Your task to perform on an android device: turn off data saver in the chrome app Image 0: 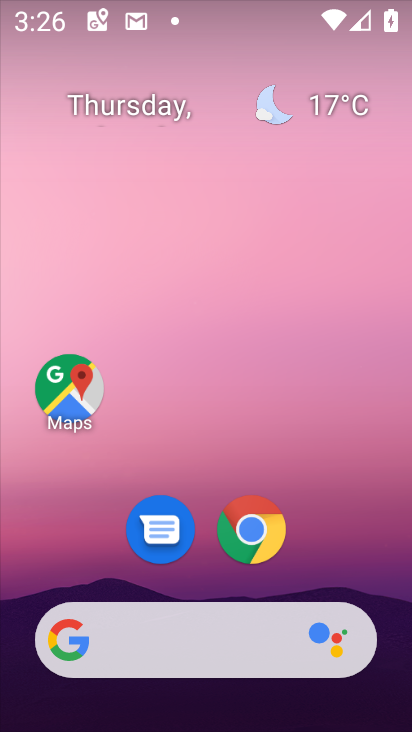
Step 0: click (244, 534)
Your task to perform on an android device: turn off data saver in the chrome app Image 1: 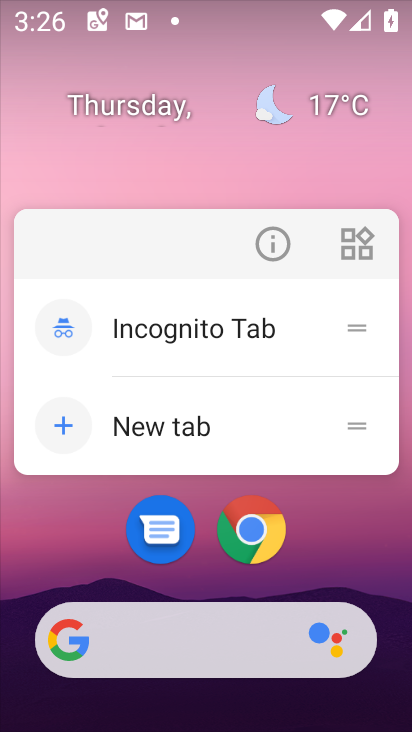
Step 1: click (244, 534)
Your task to perform on an android device: turn off data saver in the chrome app Image 2: 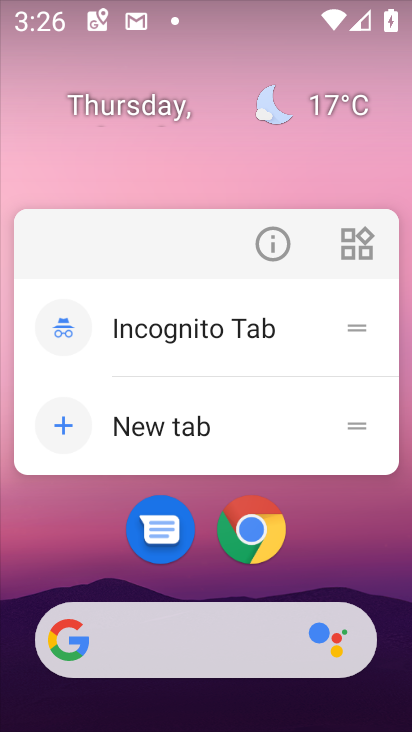
Step 2: click (259, 530)
Your task to perform on an android device: turn off data saver in the chrome app Image 3: 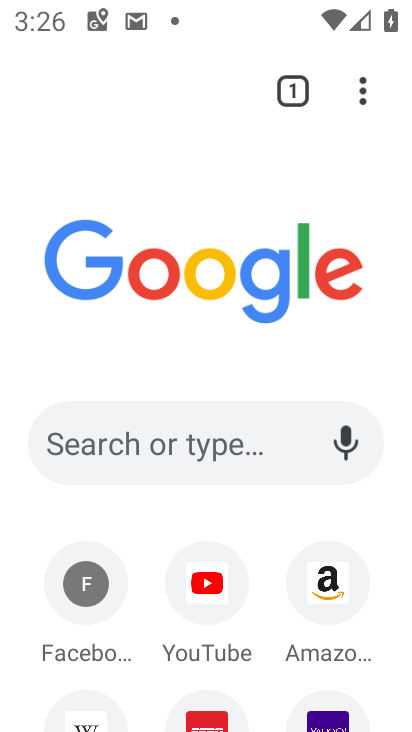
Step 3: click (357, 100)
Your task to perform on an android device: turn off data saver in the chrome app Image 4: 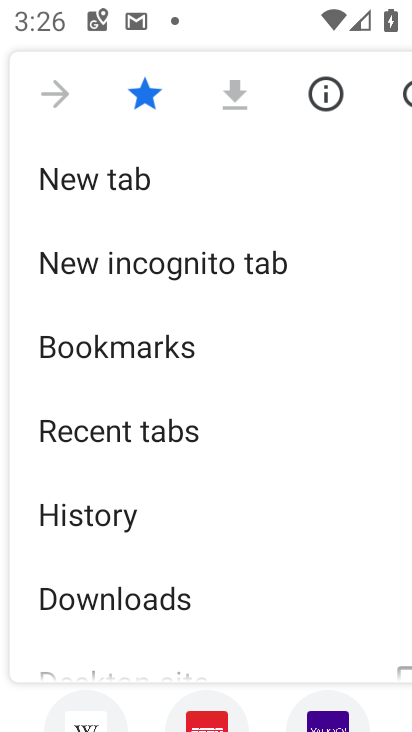
Step 4: drag from (175, 551) to (175, 199)
Your task to perform on an android device: turn off data saver in the chrome app Image 5: 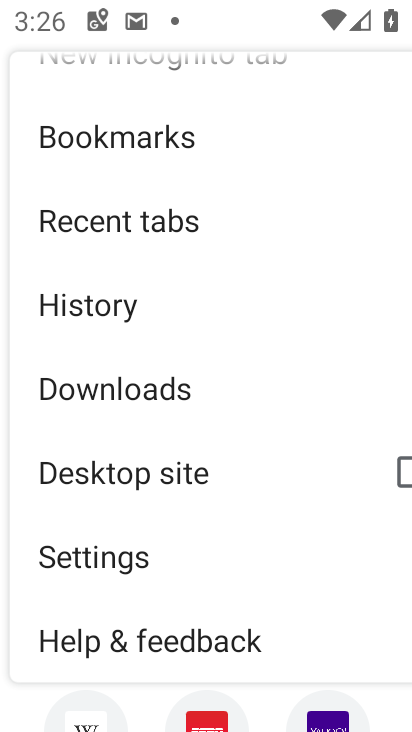
Step 5: click (107, 550)
Your task to perform on an android device: turn off data saver in the chrome app Image 6: 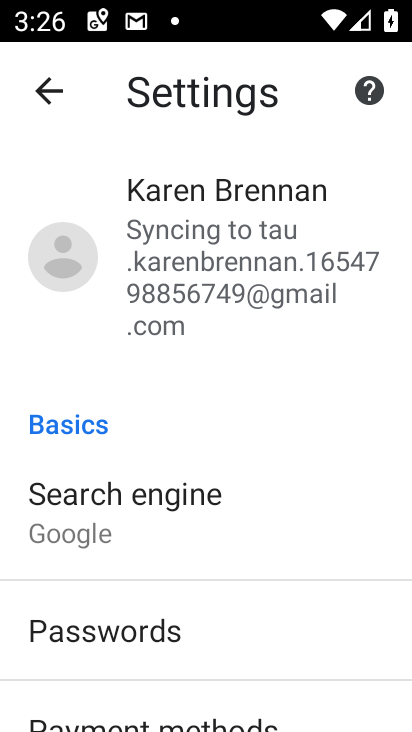
Step 6: drag from (118, 673) to (99, 185)
Your task to perform on an android device: turn off data saver in the chrome app Image 7: 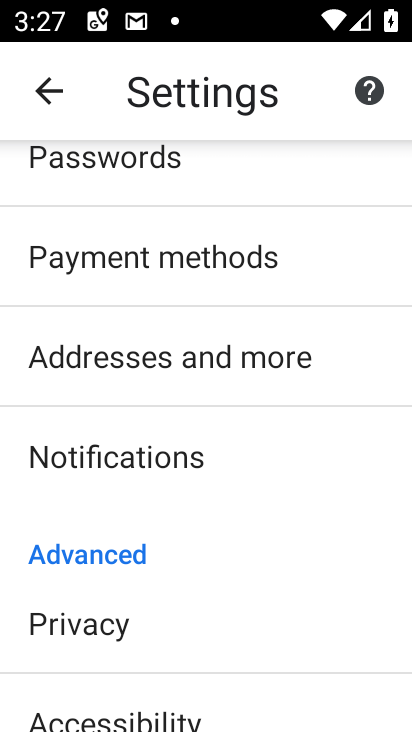
Step 7: drag from (118, 626) to (123, 317)
Your task to perform on an android device: turn off data saver in the chrome app Image 8: 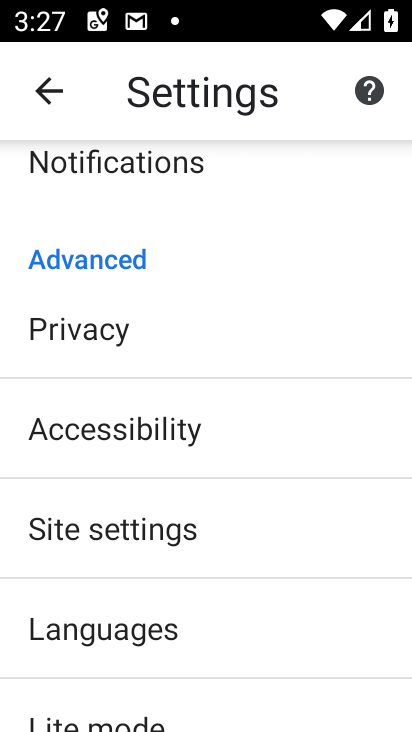
Step 8: click (98, 531)
Your task to perform on an android device: turn off data saver in the chrome app Image 9: 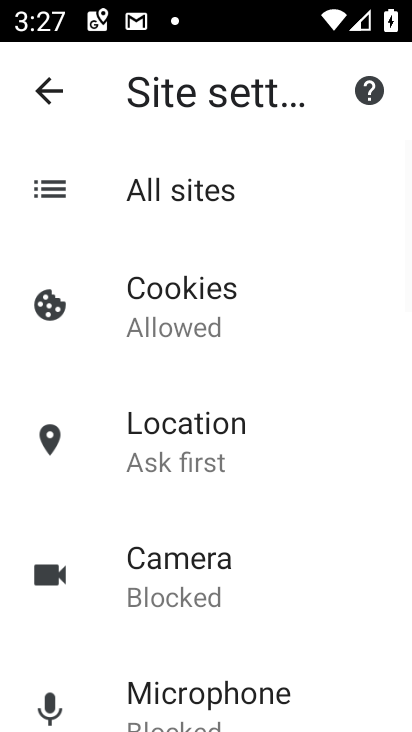
Step 9: click (48, 93)
Your task to perform on an android device: turn off data saver in the chrome app Image 10: 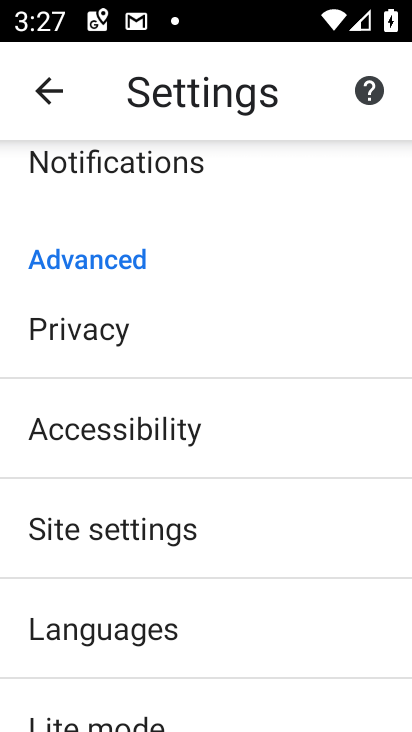
Step 10: drag from (125, 707) to (121, 372)
Your task to perform on an android device: turn off data saver in the chrome app Image 11: 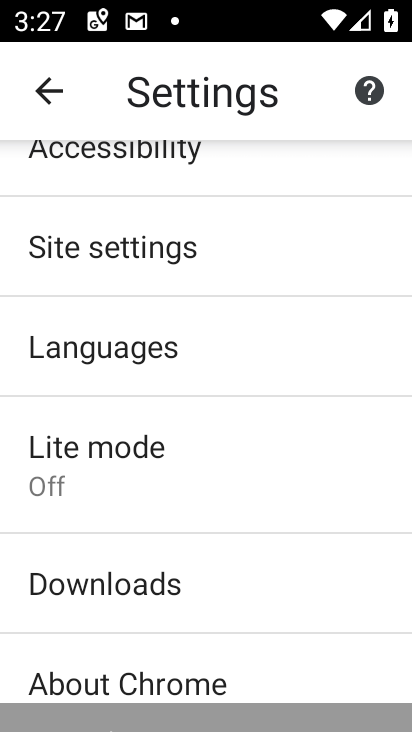
Step 11: drag from (130, 611) to (108, 319)
Your task to perform on an android device: turn off data saver in the chrome app Image 12: 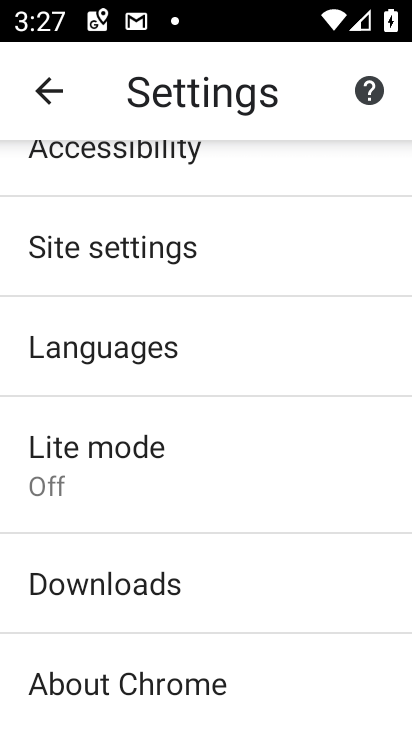
Step 12: click (105, 464)
Your task to perform on an android device: turn off data saver in the chrome app Image 13: 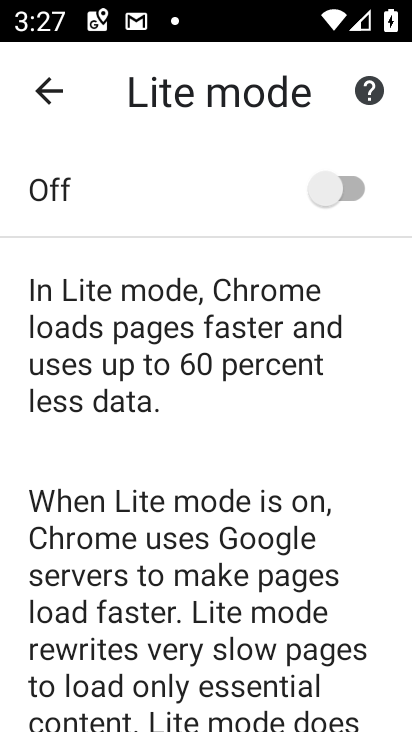
Step 13: task complete